Your task to perform on an android device: Show me the alarms in the clock app Image 0: 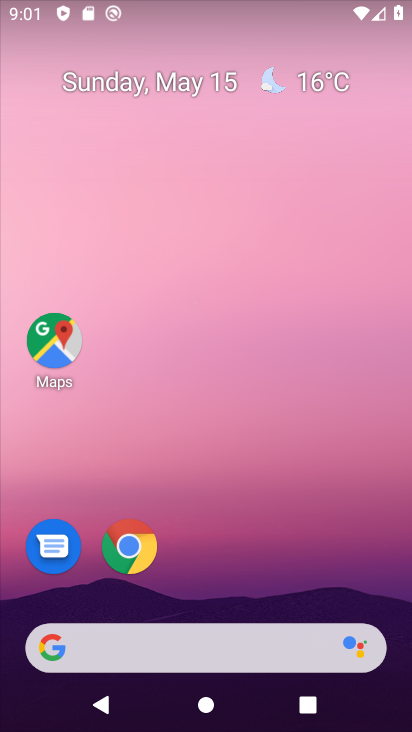
Step 0: drag from (213, 577) to (318, 108)
Your task to perform on an android device: Show me the alarms in the clock app Image 1: 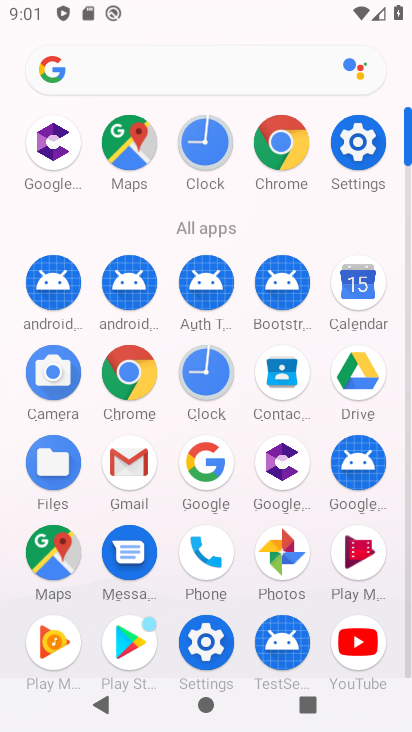
Step 1: click (184, 384)
Your task to perform on an android device: Show me the alarms in the clock app Image 2: 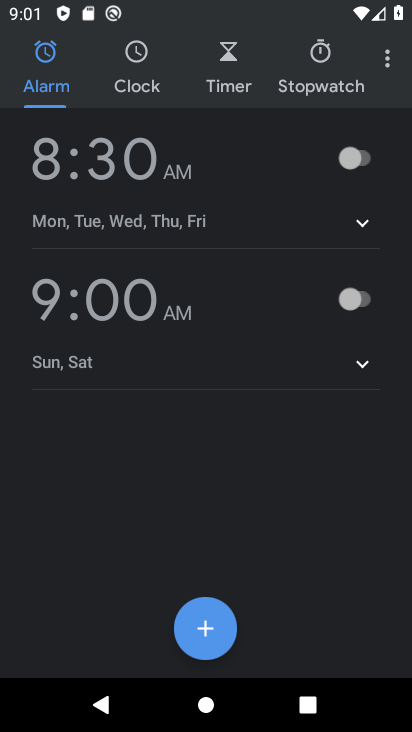
Step 2: task complete